Your task to perform on an android device: change the clock display to digital Image 0: 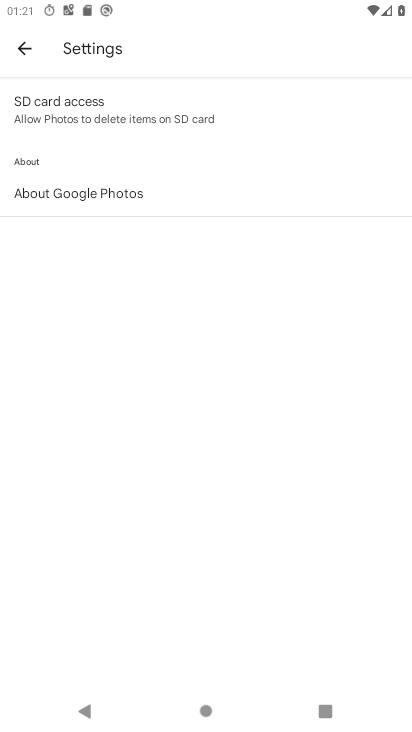
Step 0: press home button
Your task to perform on an android device: change the clock display to digital Image 1: 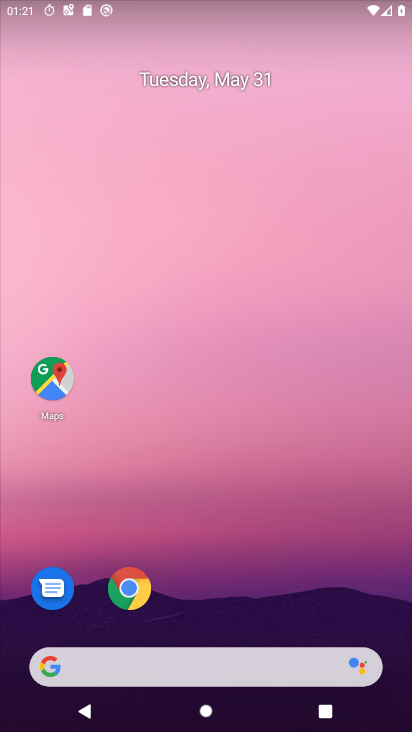
Step 1: drag from (277, 654) to (294, 123)
Your task to perform on an android device: change the clock display to digital Image 2: 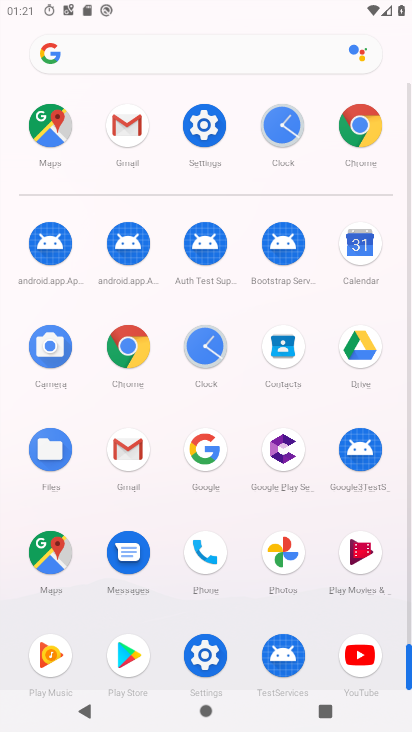
Step 2: click (191, 334)
Your task to perform on an android device: change the clock display to digital Image 3: 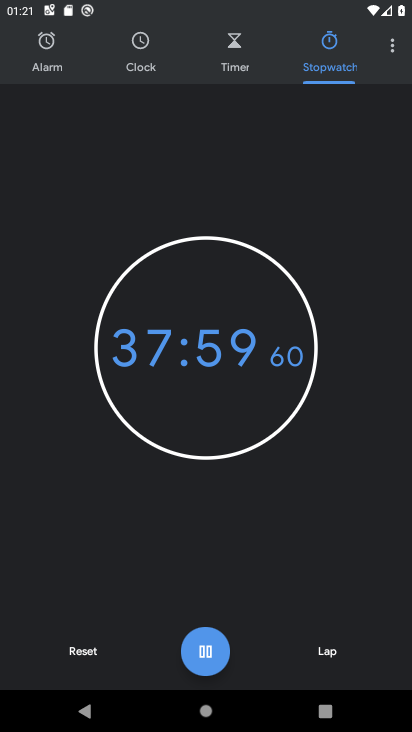
Step 3: click (389, 52)
Your task to perform on an android device: change the clock display to digital Image 4: 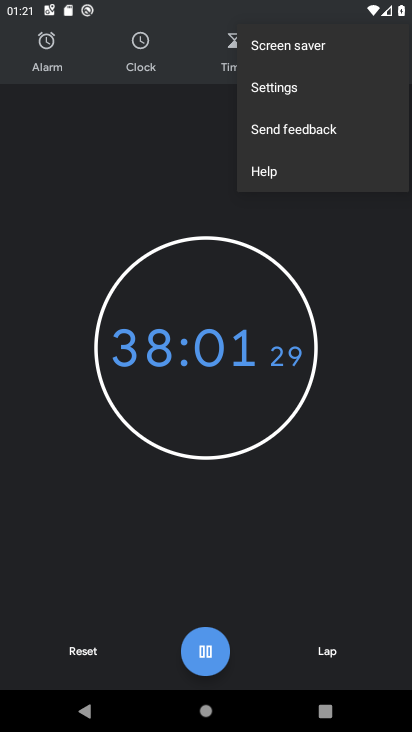
Step 4: click (282, 93)
Your task to perform on an android device: change the clock display to digital Image 5: 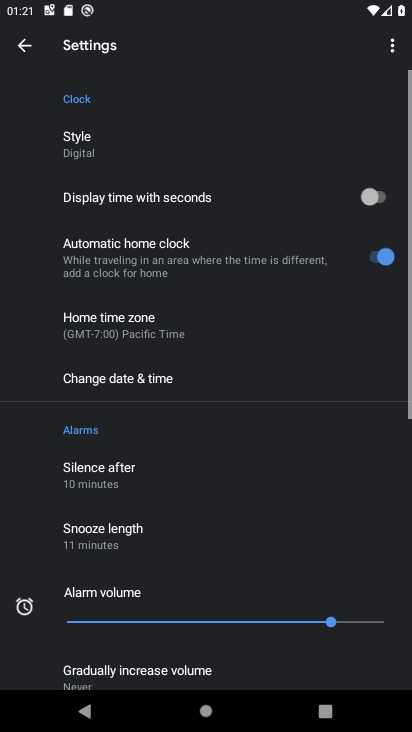
Step 5: task complete